Your task to perform on an android device: When is my next meeting? Image 0: 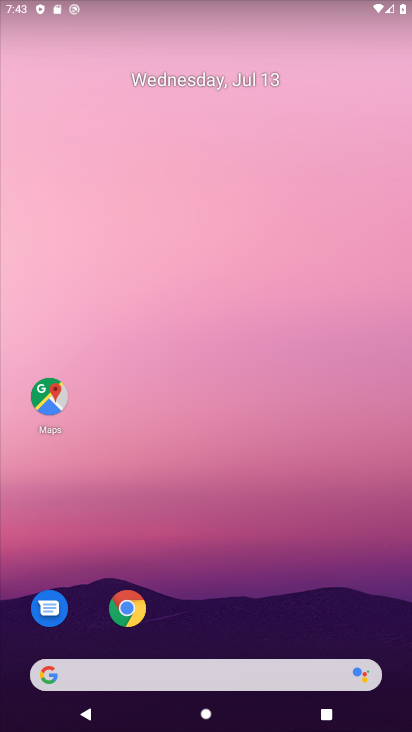
Step 0: drag from (248, 553) to (142, 4)
Your task to perform on an android device: When is my next meeting? Image 1: 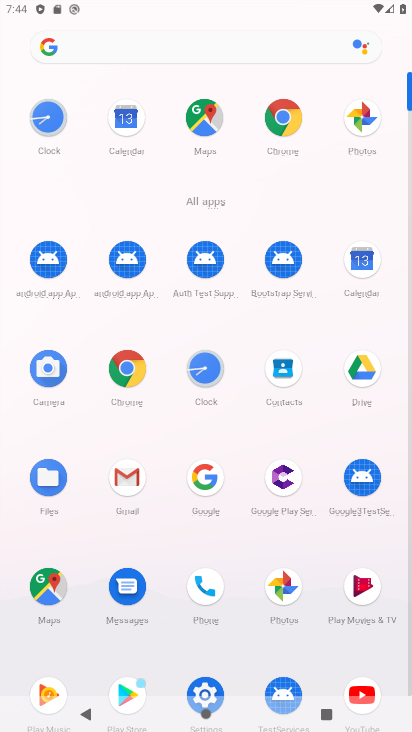
Step 1: click (359, 262)
Your task to perform on an android device: When is my next meeting? Image 2: 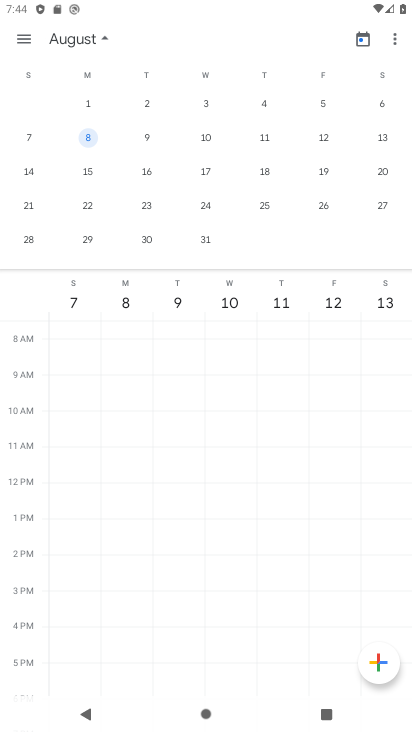
Step 2: drag from (56, 165) to (376, 282)
Your task to perform on an android device: When is my next meeting? Image 3: 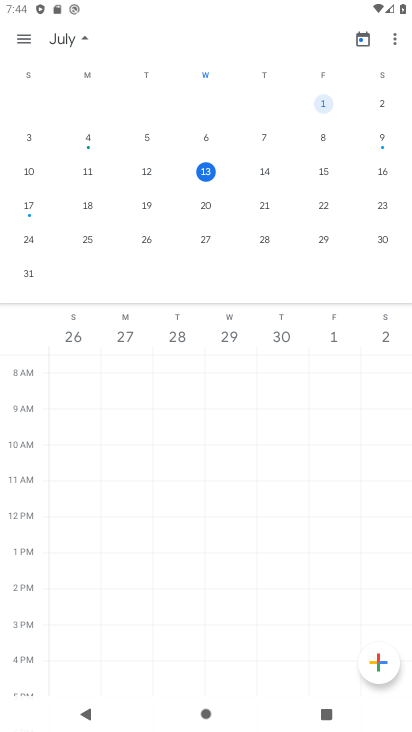
Step 3: click (202, 171)
Your task to perform on an android device: When is my next meeting? Image 4: 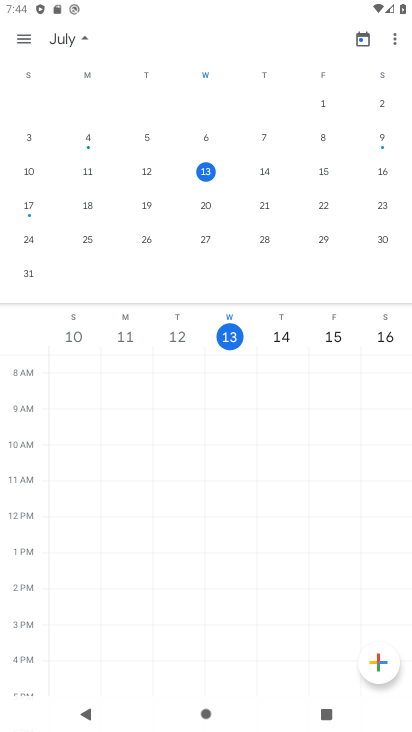
Step 4: task complete